Your task to perform on an android device: turn on notifications settings in the gmail app Image 0: 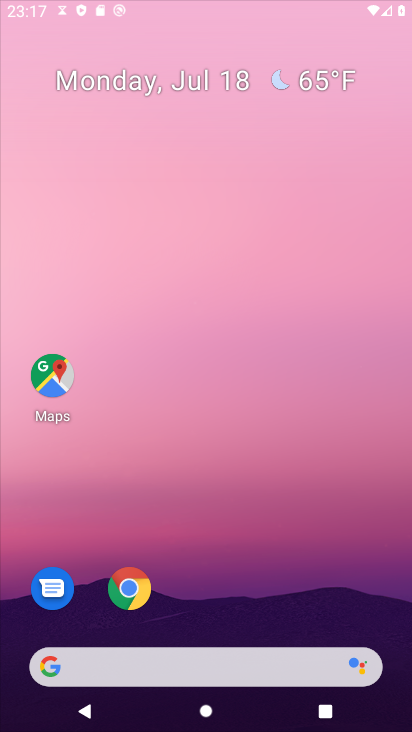
Step 0: press home button
Your task to perform on an android device: turn on notifications settings in the gmail app Image 1: 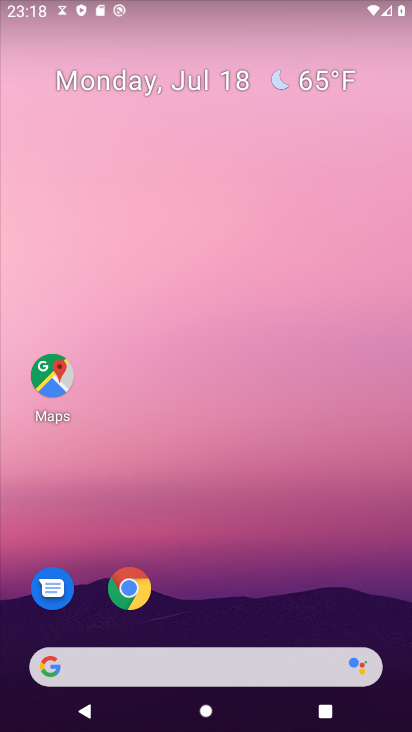
Step 1: press home button
Your task to perform on an android device: turn on notifications settings in the gmail app Image 2: 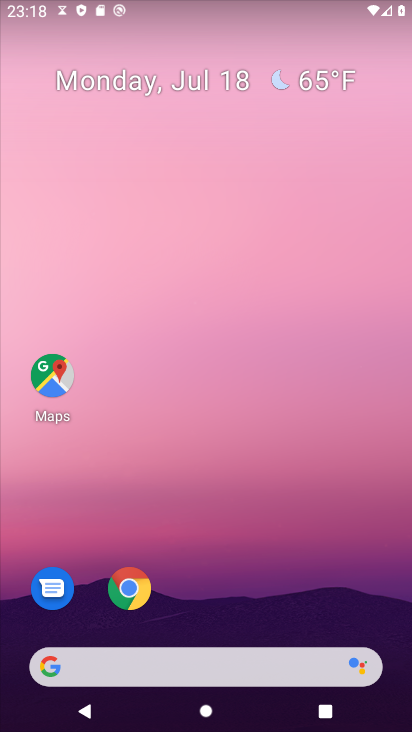
Step 2: drag from (259, 575) to (383, 87)
Your task to perform on an android device: turn on notifications settings in the gmail app Image 3: 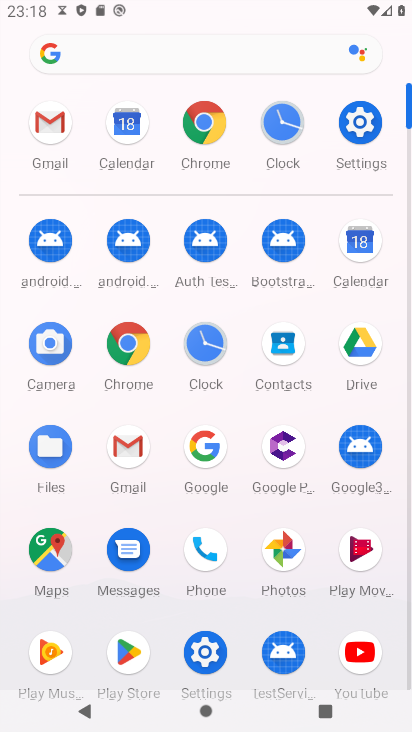
Step 3: click (58, 123)
Your task to perform on an android device: turn on notifications settings in the gmail app Image 4: 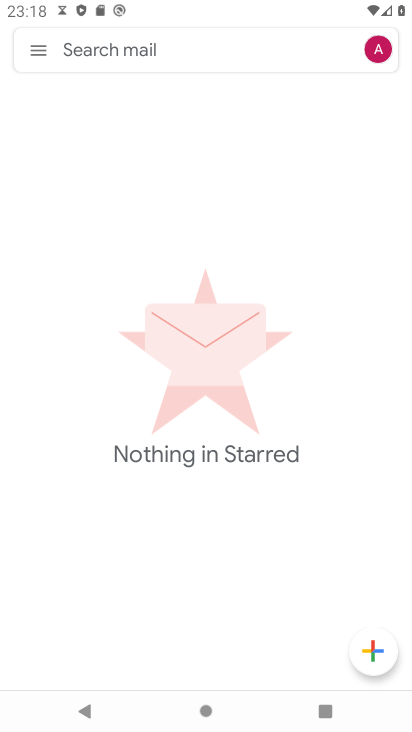
Step 4: click (46, 47)
Your task to perform on an android device: turn on notifications settings in the gmail app Image 5: 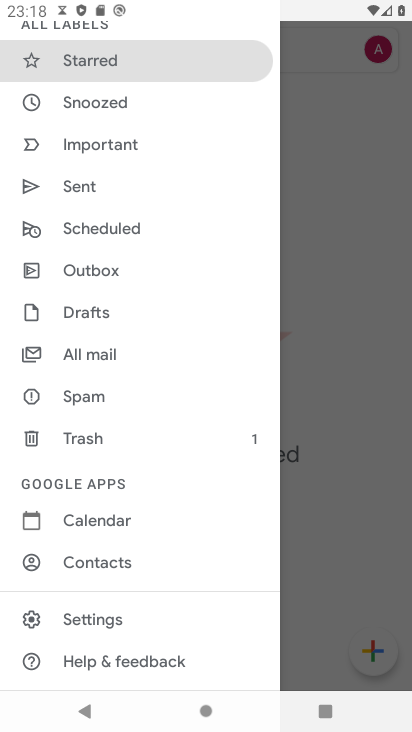
Step 5: click (95, 613)
Your task to perform on an android device: turn on notifications settings in the gmail app Image 6: 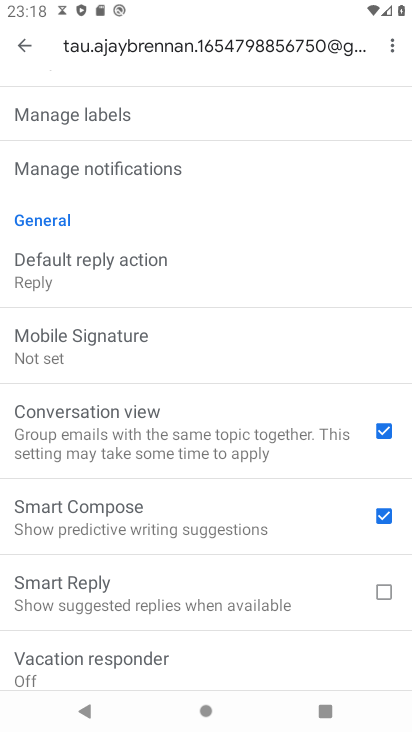
Step 6: click (103, 162)
Your task to perform on an android device: turn on notifications settings in the gmail app Image 7: 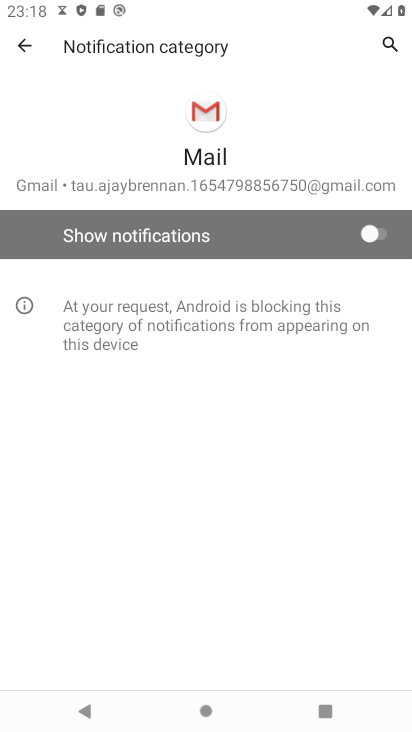
Step 7: click (359, 223)
Your task to perform on an android device: turn on notifications settings in the gmail app Image 8: 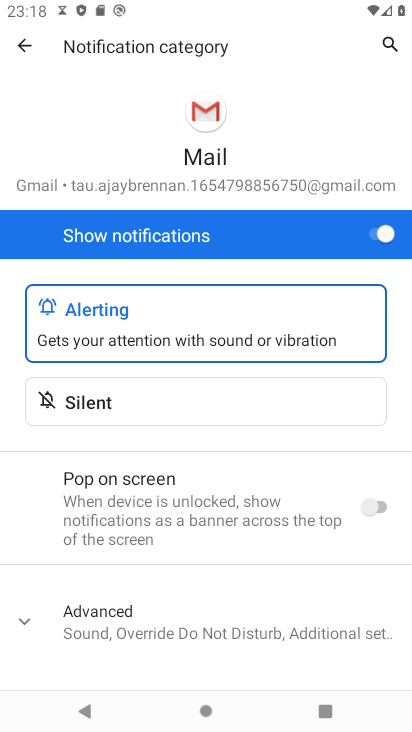
Step 8: task complete